Your task to perform on an android device: Open calendar and show me the third week of next month Image 0: 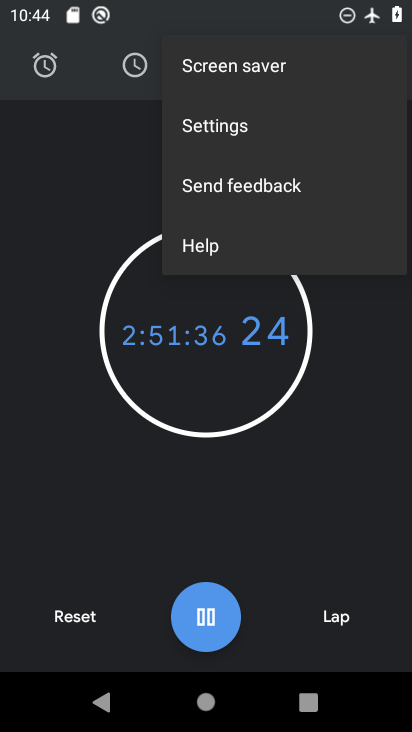
Step 0: press home button
Your task to perform on an android device: Open calendar and show me the third week of next month Image 1: 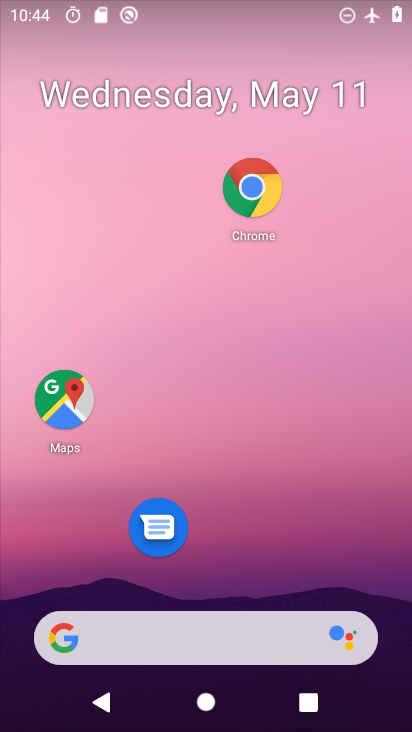
Step 1: drag from (253, 598) to (343, 199)
Your task to perform on an android device: Open calendar and show me the third week of next month Image 2: 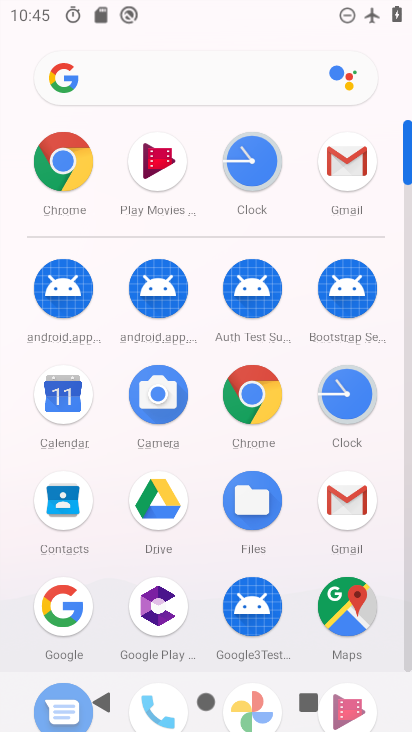
Step 2: click (80, 411)
Your task to perform on an android device: Open calendar and show me the third week of next month Image 3: 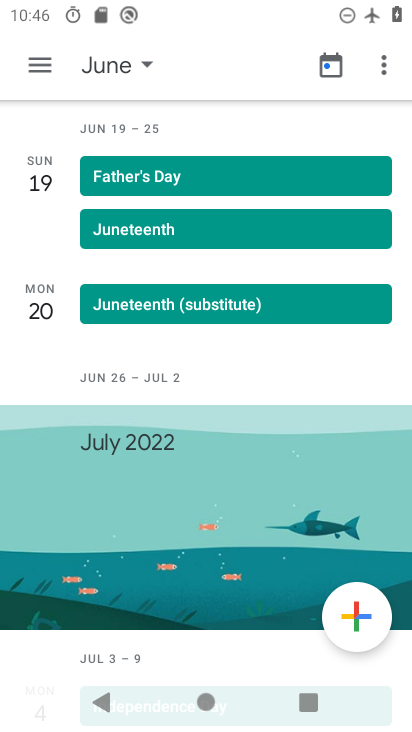
Step 3: click (144, 69)
Your task to perform on an android device: Open calendar and show me the third week of next month Image 4: 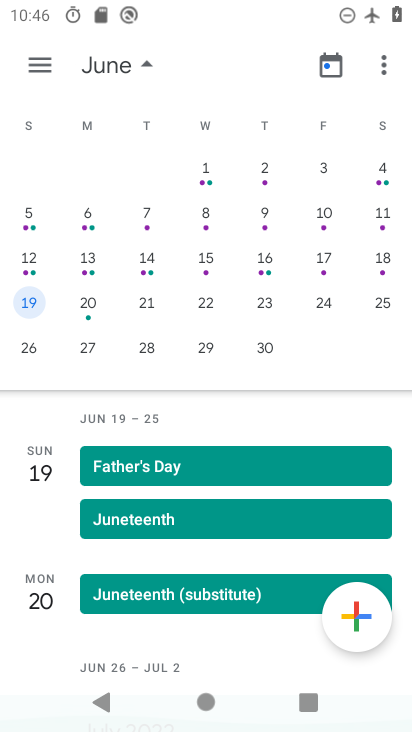
Step 4: task complete